Your task to perform on an android device: Open the stopwatch Image 0: 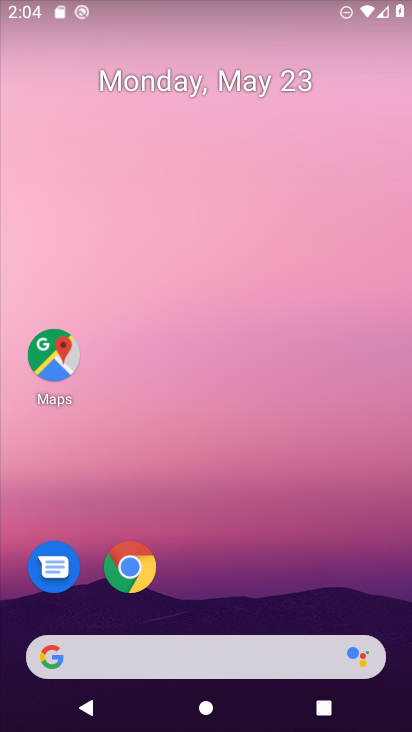
Step 0: drag from (390, 602) to (376, 124)
Your task to perform on an android device: Open the stopwatch Image 1: 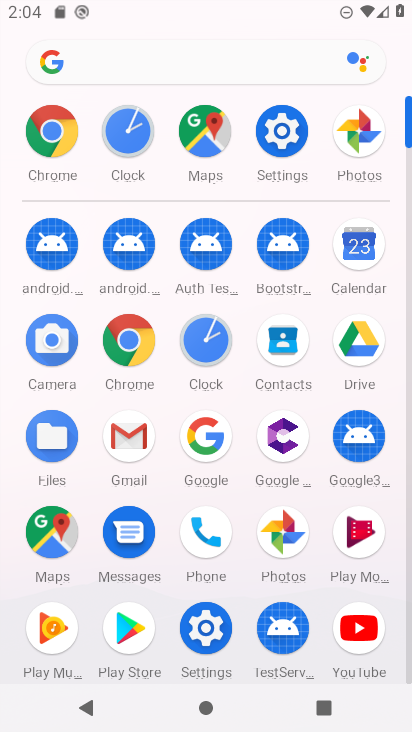
Step 1: click (213, 342)
Your task to perform on an android device: Open the stopwatch Image 2: 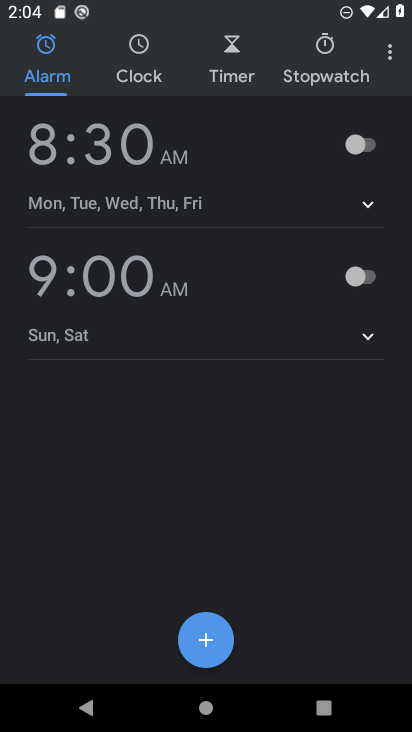
Step 2: click (157, 57)
Your task to perform on an android device: Open the stopwatch Image 3: 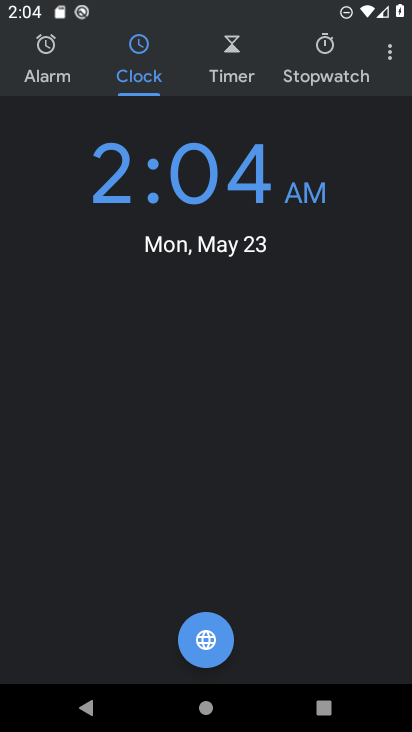
Step 3: click (323, 66)
Your task to perform on an android device: Open the stopwatch Image 4: 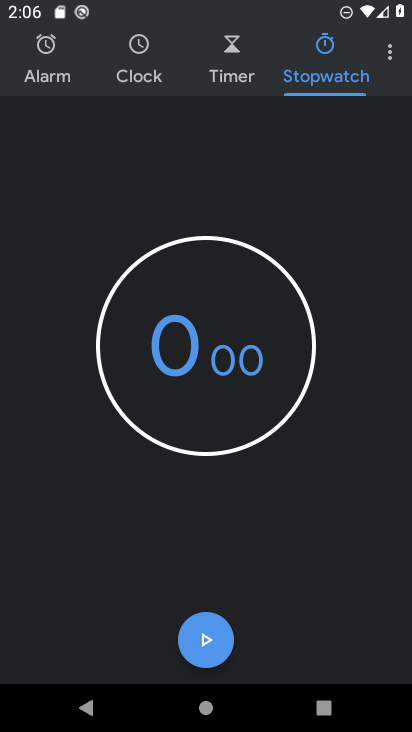
Step 4: task complete